Your task to perform on an android device: change your default location settings in chrome Image 0: 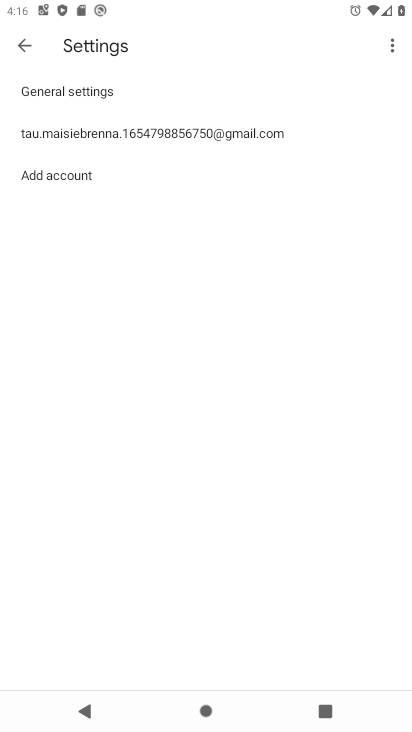
Step 0: press home button
Your task to perform on an android device: change your default location settings in chrome Image 1: 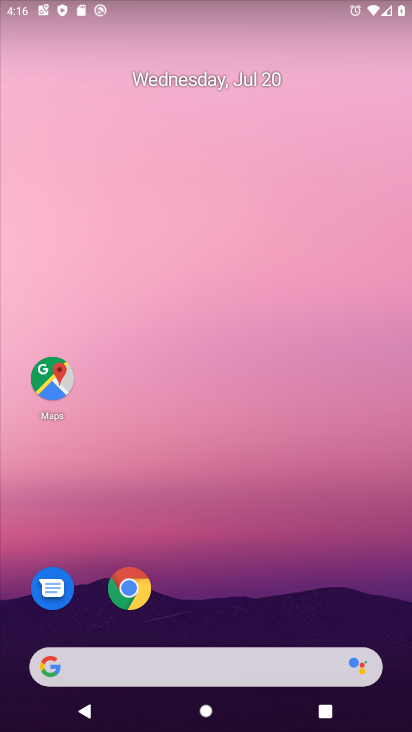
Step 1: drag from (236, 553) to (218, 112)
Your task to perform on an android device: change your default location settings in chrome Image 2: 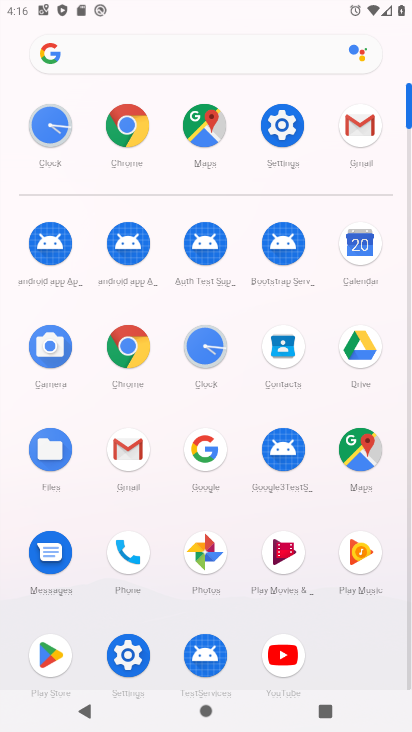
Step 2: click (126, 349)
Your task to perform on an android device: change your default location settings in chrome Image 3: 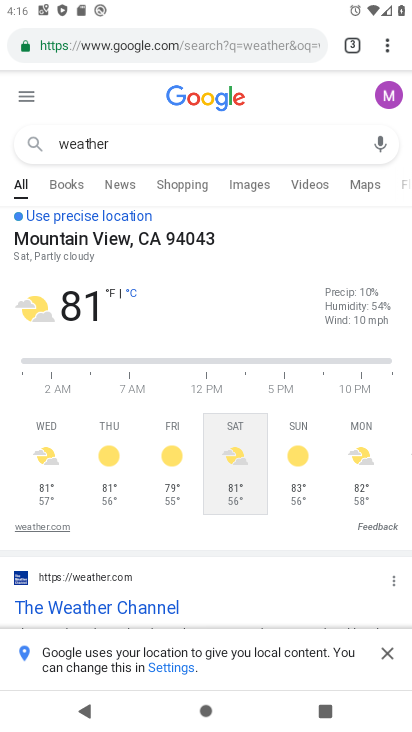
Step 3: drag from (389, 41) to (228, 501)
Your task to perform on an android device: change your default location settings in chrome Image 4: 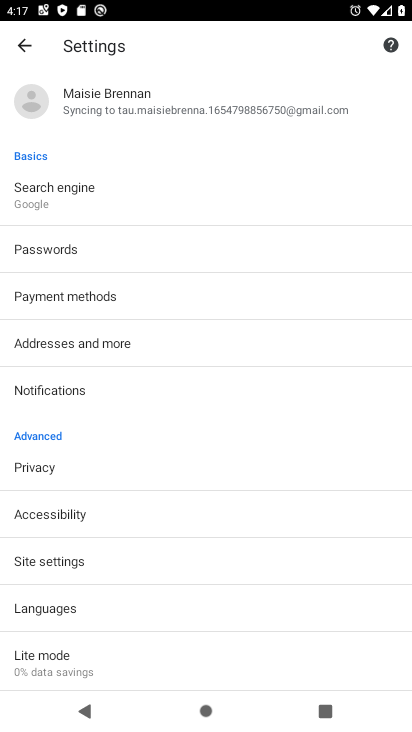
Step 4: click (65, 185)
Your task to perform on an android device: change your default location settings in chrome Image 5: 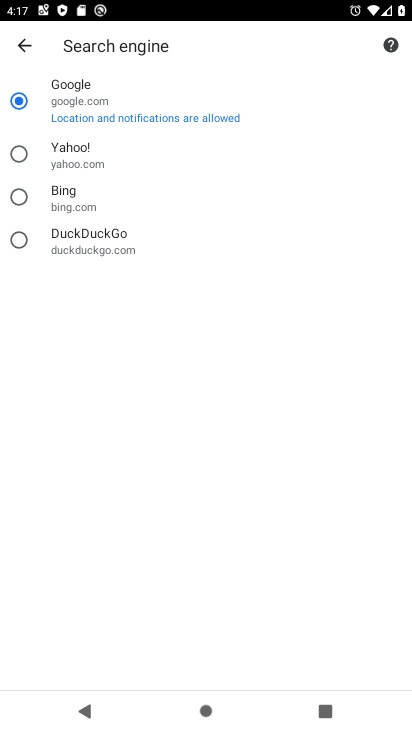
Step 5: click (27, 43)
Your task to perform on an android device: change your default location settings in chrome Image 6: 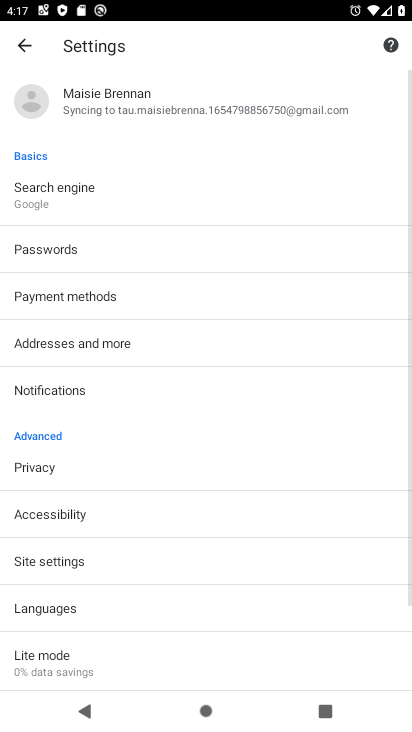
Step 6: click (73, 565)
Your task to perform on an android device: change your default location settings in chrome Image 7: 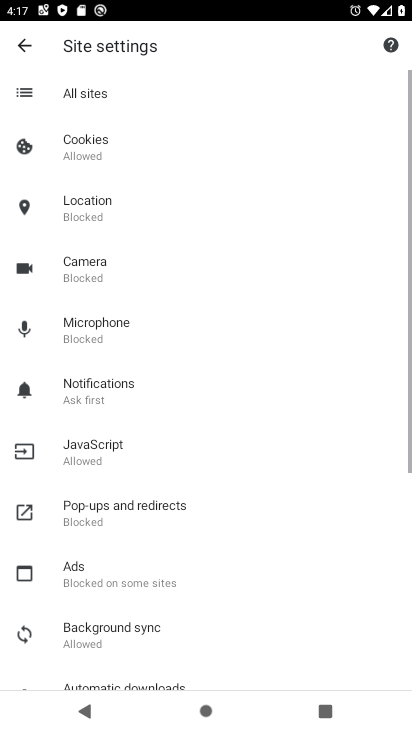
Step 7: click (97, 212)
Your task to perform on an android device: change your default location settings in chrome Image 8: 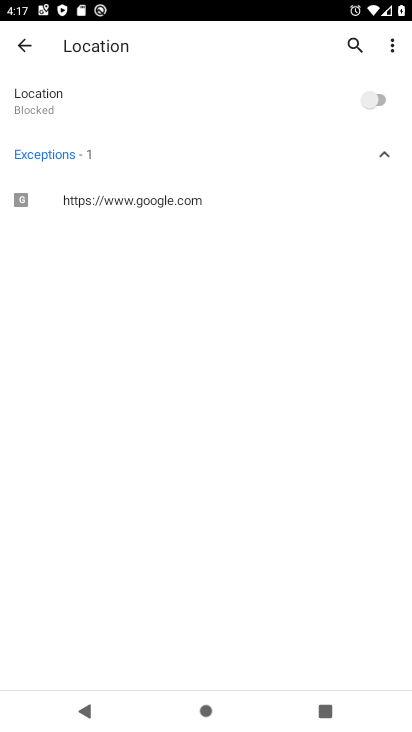
Step 8: click (385, 93)
Your task to perform on an android device: change your default location settings in chrome Image 9: 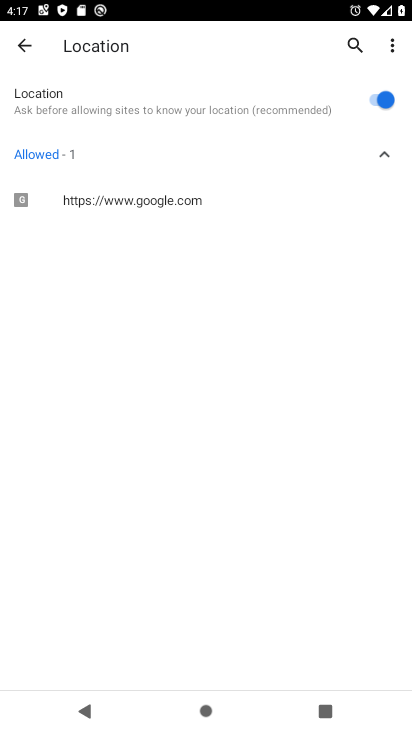
Step 9: task complete